Your task to perform on an android device: Open the web browser Image 0: 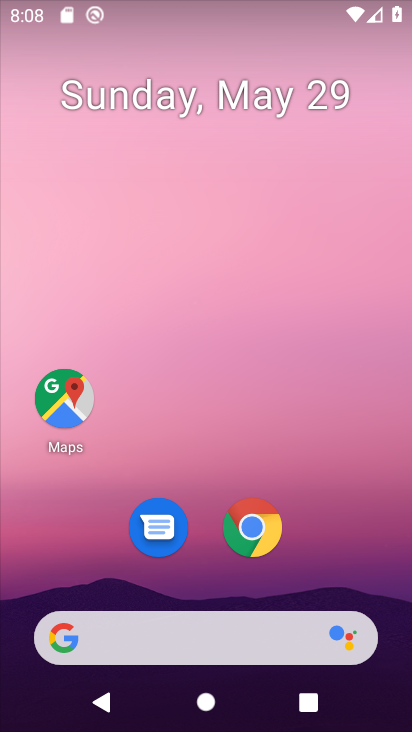
Step 0: click (251, 523)
Your task to perform on an android device: Open the web browser Image 1: 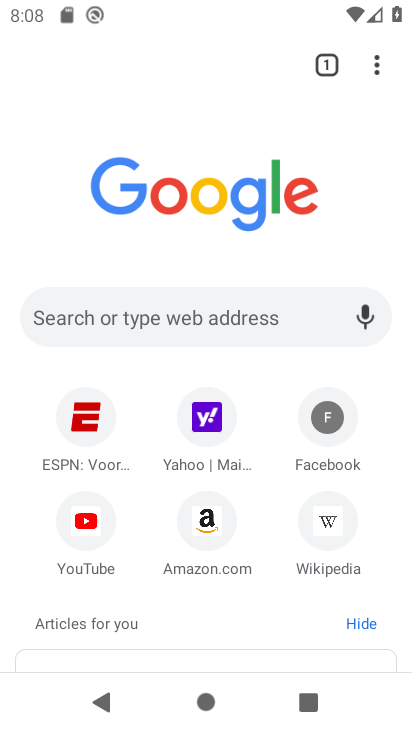
Step 1: task complete